Your task to perform on an android device: turn on javascript in the chrome app Image 0: 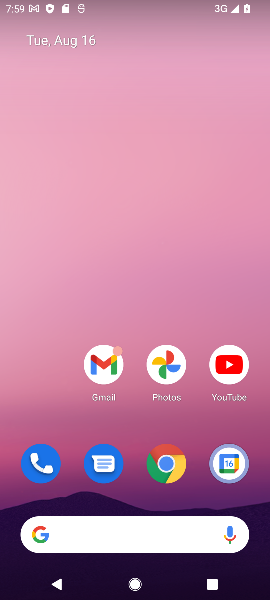
Step 0: click (169, 467)
Your task to perform on an android device: turn on javascript in the chrome app Image 1: 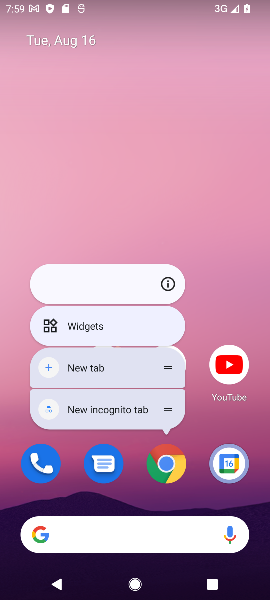
Step 1: click (167, 469)
Your task to perform on an android device: turn on javascript in the chrome app Image 2: 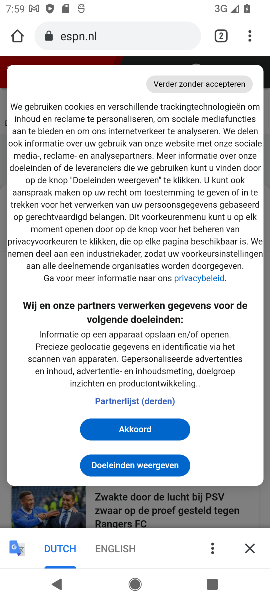
Step 2: click (251, 30)
Your task to perform on an android device: turn on javascript in the chrome app Image 3: 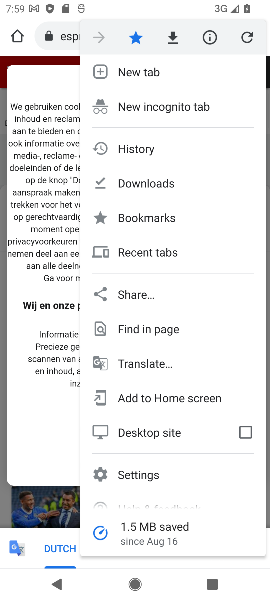
Step 3: click (137, 481)
Your task to perform on an android device: turn on javascript in the chrome app Image 4: 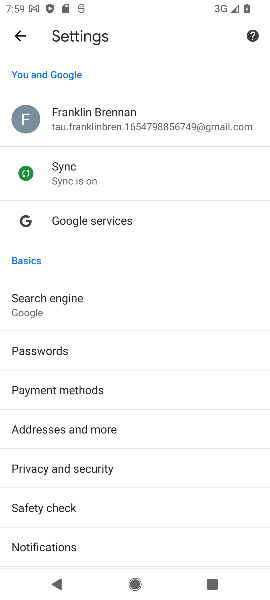
Step 4: drag from (75, 465) to (75, 325)
Your task to perform on an android device: turn on javascript in the chrome app Image 5: 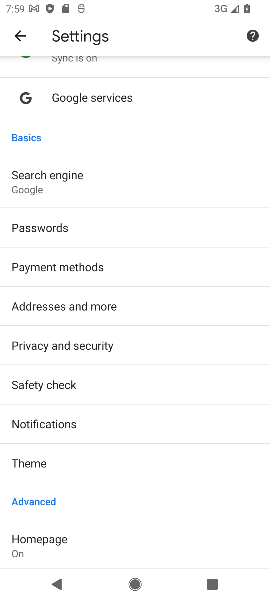
Step 5: drag from (68, 518) to (81, 238)
Your task to perform on an android device: turn on javascript in the chrome app Image 6: 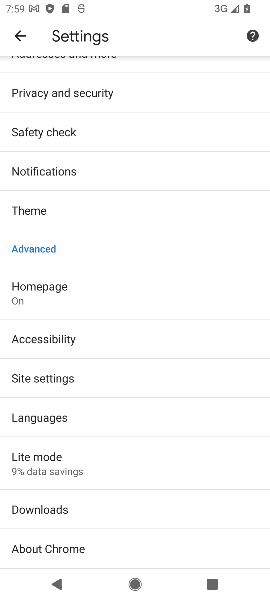
Step 6: click (45, 376)
Your task to perform on an android device: turn on javascript in the chrome app Image 7: 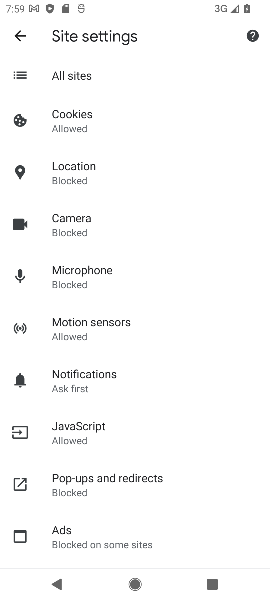
Step 7: click (73, 438)
Your task to perform on an android device: turn on javascript in the chrome app Image 8: 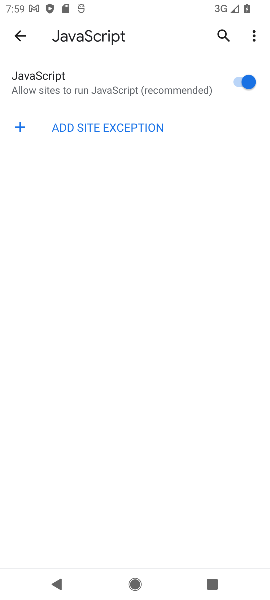
Step 8: task complete